Your task to perform on an android device: Set the phone to "Do not disturb". Image 0: 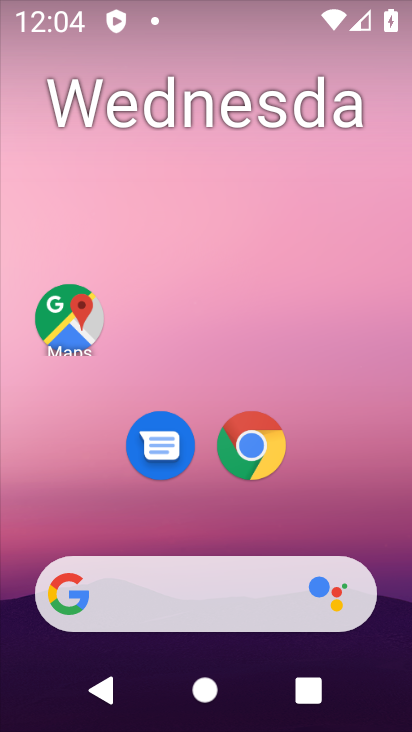
Step 0: drag from (74, 523) to (222, 101)
Your task to perform on an android device: Set the phone to "Do not disturb". Image 1: 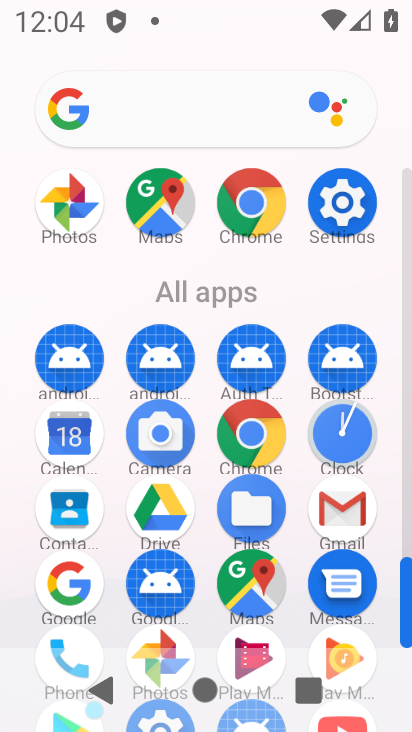
Step 1: drag from (174, 665) to (272, 375)
Your task to perform on an android device: Set the phone to "Do not disturb". Image 2: 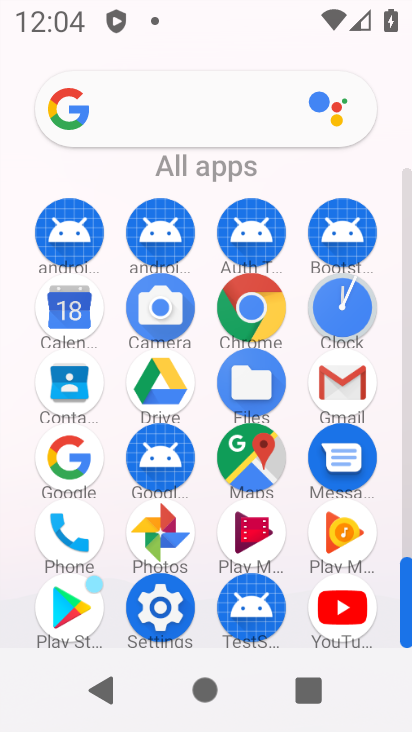
Step 2: click (287, 552)
Your task to perform on an android device: Set the phone to "Do not disturb". Image 3: 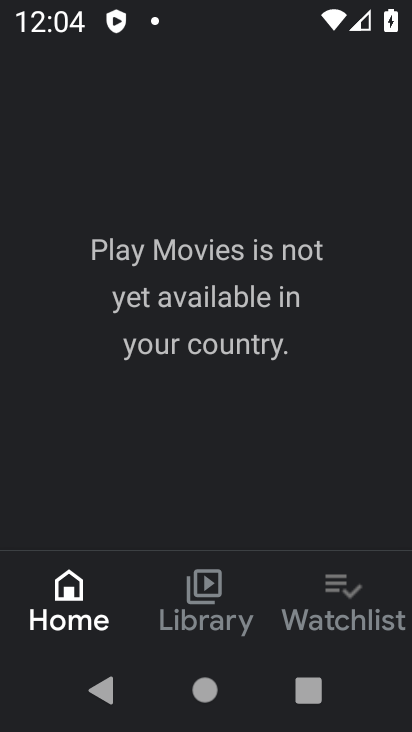
Step 3: press home button
Your task to perform on an android device: Set the phone to "Do not disturb". Image 4: 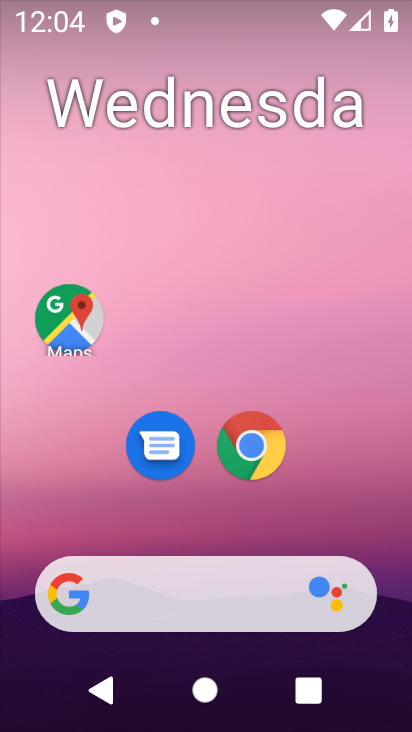
Step 4: drag from (143, 519) to (295, 118)
Your task to perform on an android device: Set the phone to "Do not disturb". Image 5: 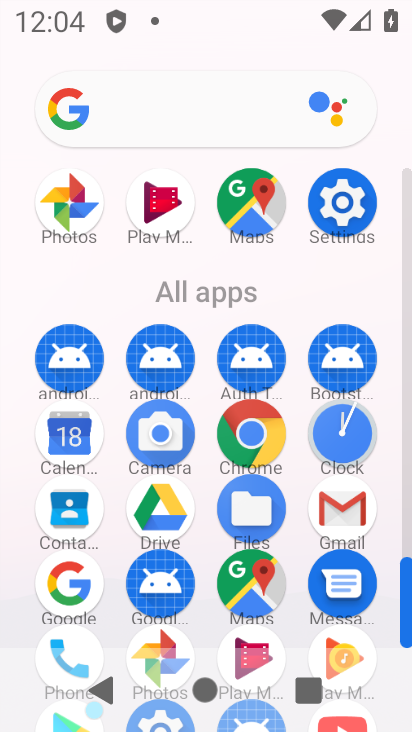
Step 5: drag from (124, 662) to (259, 398)
Your task to perform on an android device: Set the phone to "Do not disturb". Image 6: 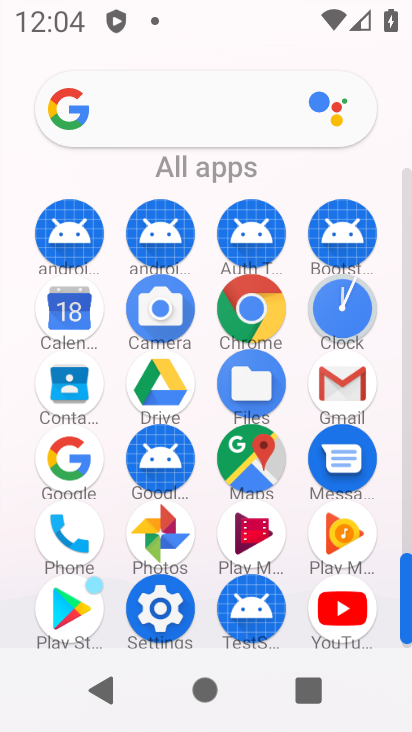
Step 6: click (163, 619)
Your task to perform on an android device: Set the phone to "Do not disturb". Image 7: 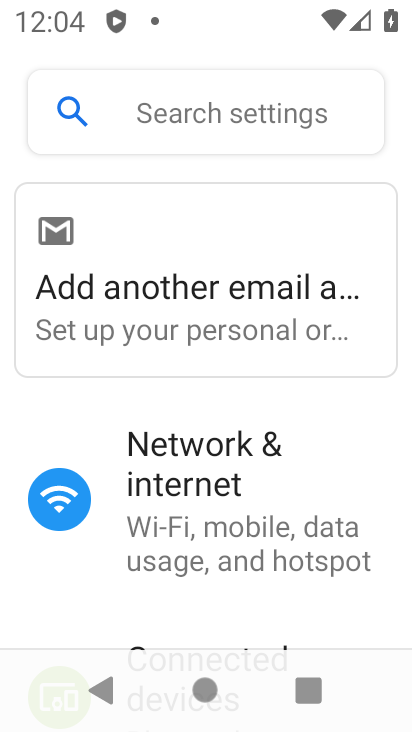
Step 7: drag from (233, 592) to (405, 201)
Your task to perform on an android device: Set the phone to "Do not disturb". Image 8: 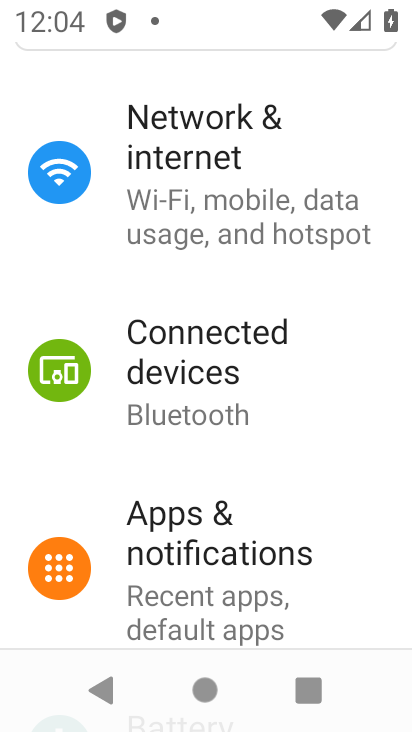
Step 8: click (261, 553)
Your task to perform on an android device: Set the phone to "Do not disturb". Image 9: 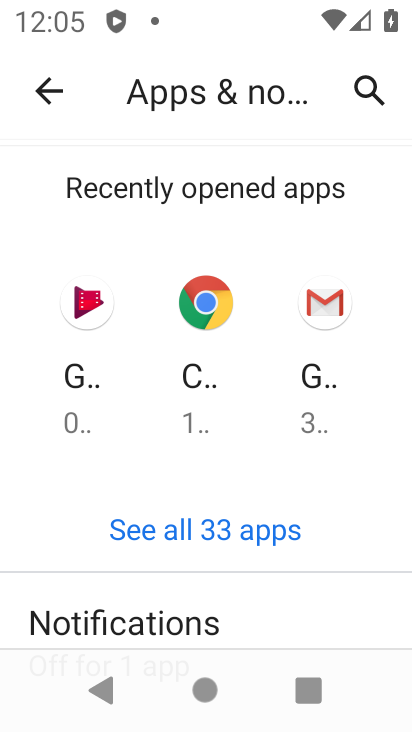
Step 9: drag from (231, 614) to (398, 157)
Your task to perform on an android device: Set the phone to "Do not disturb". Image 10: 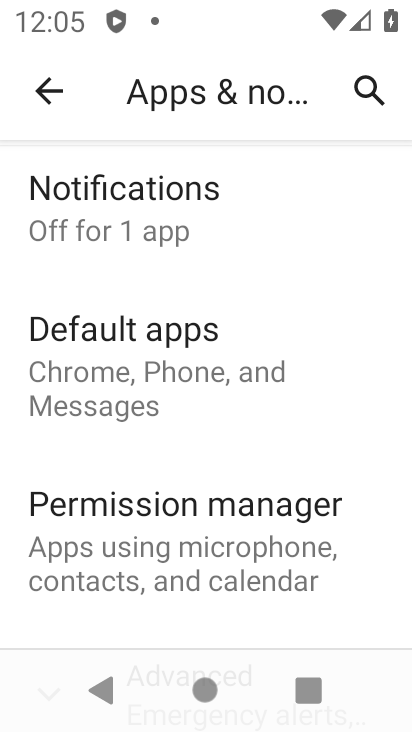
Step 10: click (325, 228)
Your task to perform on an android device: Set the phone to "Do not disturb". Image 11: 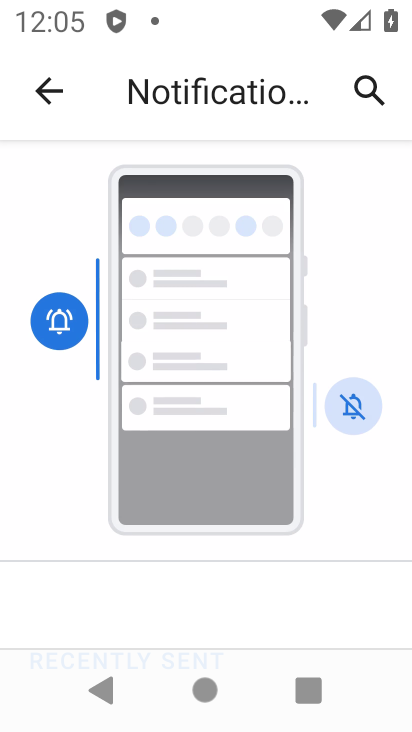
Step 11: drag from (265, 616) to (408, 101)
Your task to perform on an android device: Set the phone to "Do not disturb". Image 12: 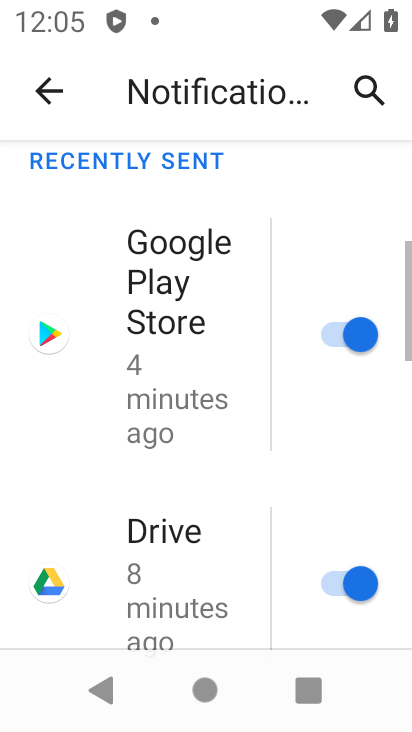
Step 12: drag from (191, 579) to (393, 50)
Your task to perform on an android device: Set the phone to "Do not disturb". Image 13: 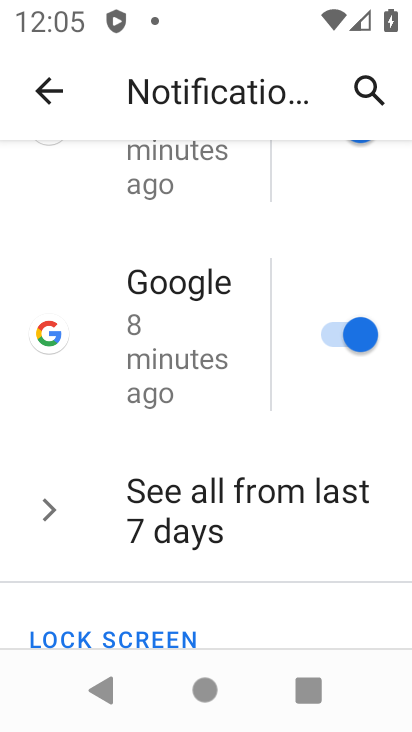
Step 13: drag from (254, 594) to (408, 256)
Your task to perform on an android device: Set the phone to "Do not disturb". Image 14: 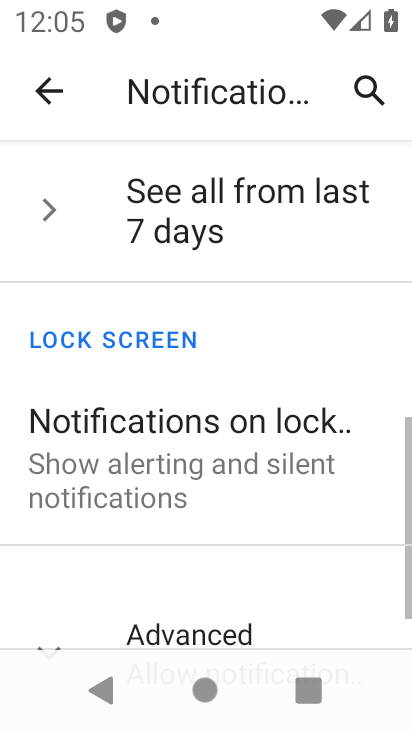
Step 14: drag from (265, 624) to (411, 226)
Your task to perform on an android device: Set the phone to "Do not disturb". Image 15: 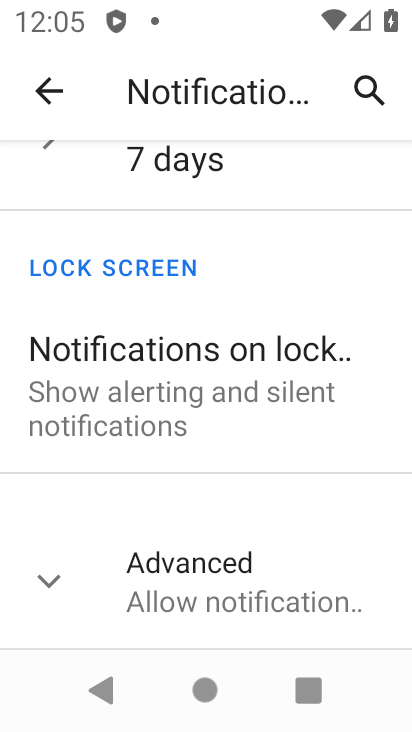
Step 15: click (280, 571)
Your task to perform on an android device: Set the phone to "Do not disturb". Image 16: 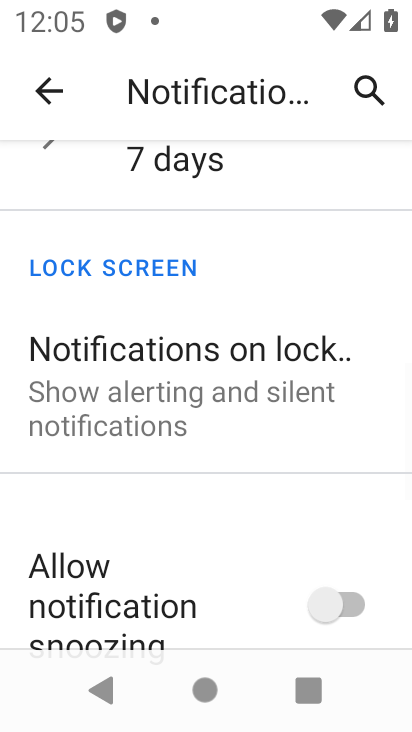
Step 16: drag from (163, 626) to (334, 110)
Your task to perform on an android device: Set the phone to "Do not disturb". Image 17: 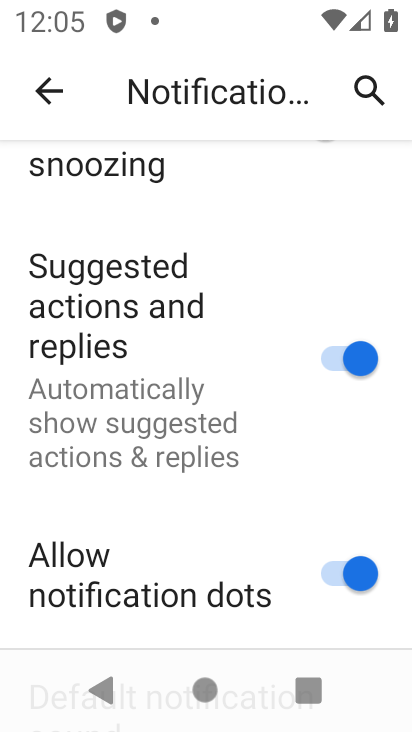
Step 17: drag from (216, 564) to (341, 107)
Your task to perform on an android device: Set the phone to "Do not disturb". Image 18: 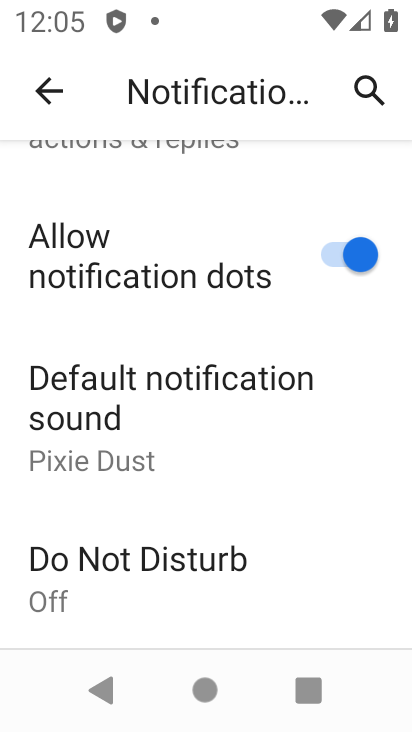
Step 18: click (231, 576)
Your task to perform on an android device: Set the phone to "Do not disturb". Image 19: 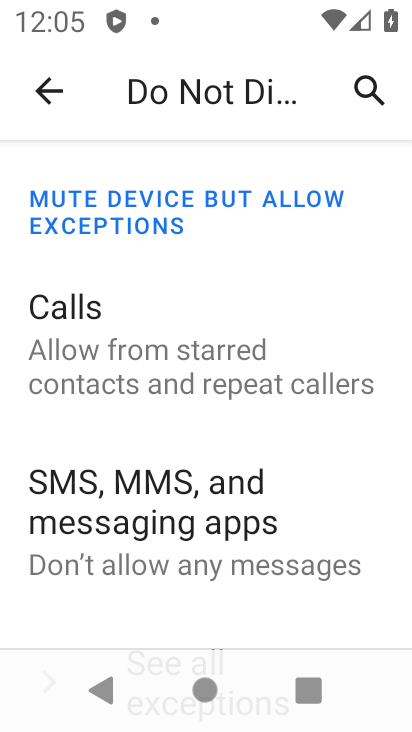
Step 19: drag from (238, 566) to (360, 85)
Your task to perform on an android device: Set the phone to "Do not disturb". Image 20: 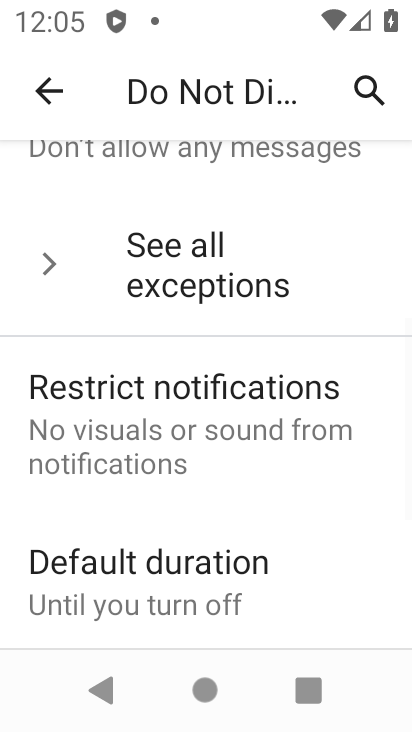
Step 20: drag from (227, 599) to (339, 90)
Your task to perform on an android device: Set the phone to "Do not disturb". Image 21: 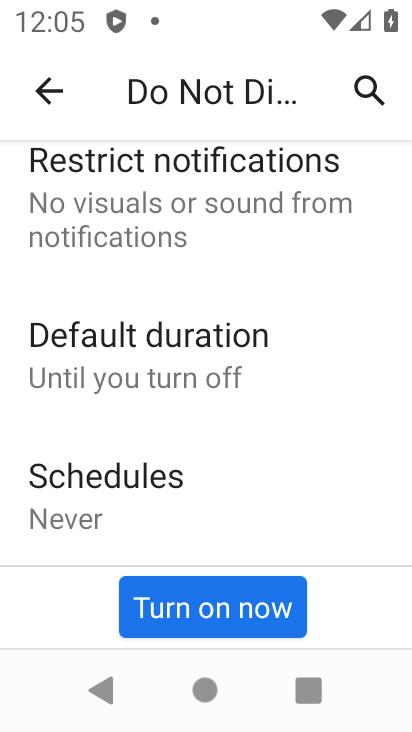
Step 21: click (251, 608)
Your task to perform on an android device: Set the phone to "Do not disturb". Image 22: 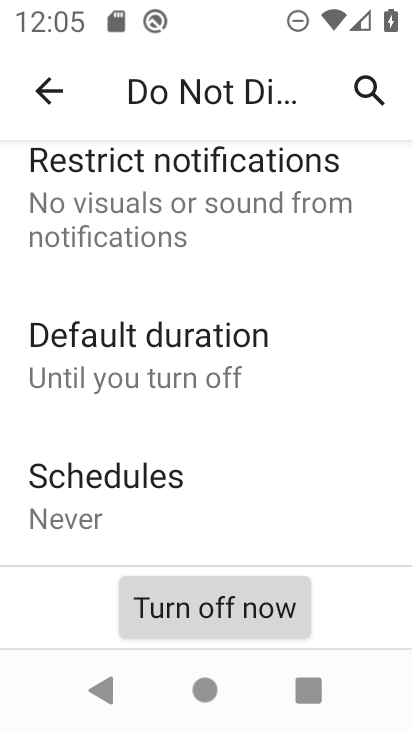
Step 22: task complete